Your task to perform on an android device: Go to Amazon Image 0: 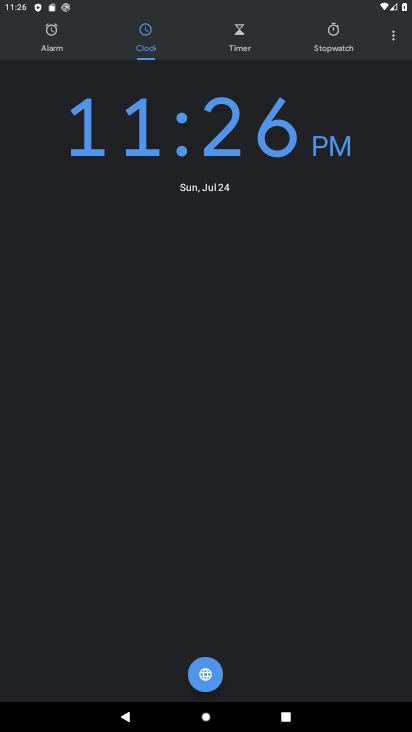
Step 0: press home button
Your task to perform on an android device: Go to Amazon Image 1: 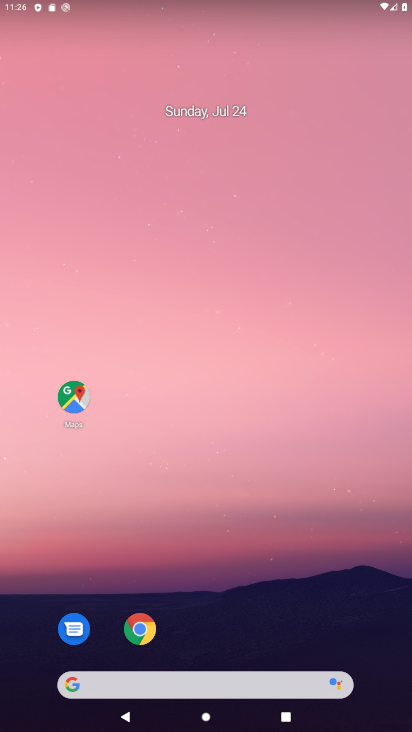
Step 1: click (137, 633)
Your task to perform on an android device: Go to Amazon Image 2: 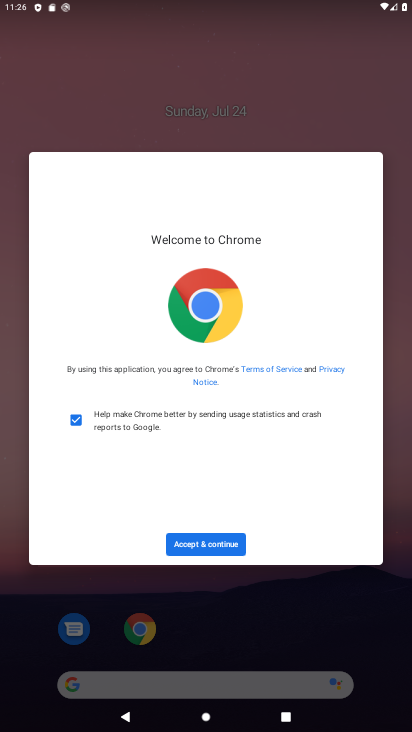
Step 2: click (227, 539)
Your task to perform on an android device: Go to Amazon Image 3: 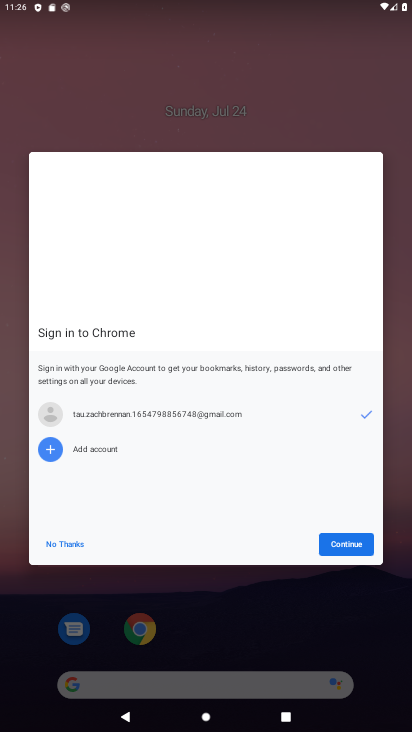
Step 3: click (336, 549)
Your task to perform on an android device: Go to Amazon Image 4: 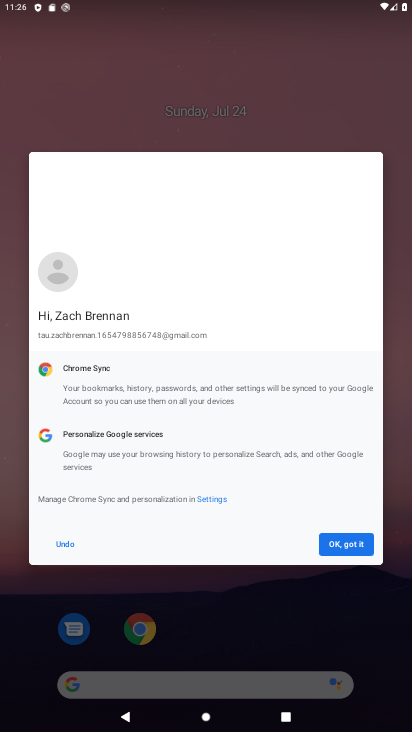
Step 4: click (342, 546)
Your task to perform on an android device: Go to Amazon Image 5: 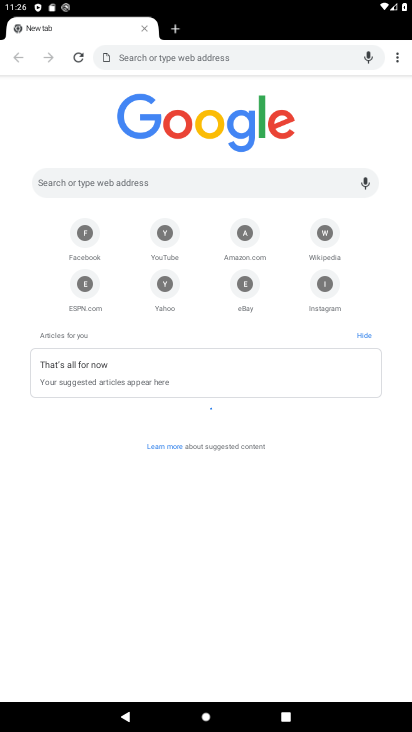
Step 5: click (251, 233)
Your task to perform on an android device: Go to Amazon Image 6: 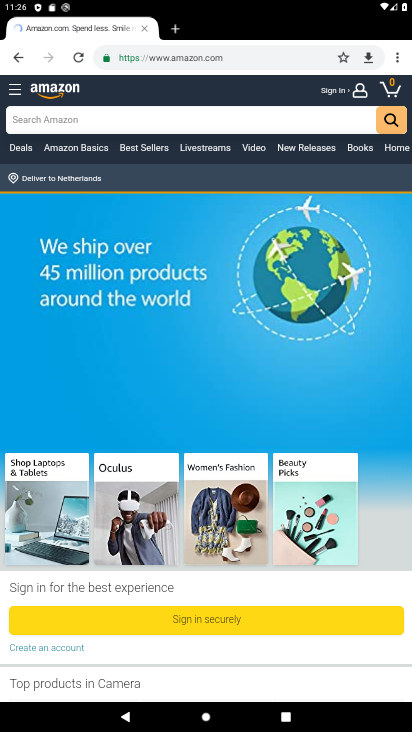
Step 6: task complete